Your task to perform on an android device: Open the web browser Image 0: 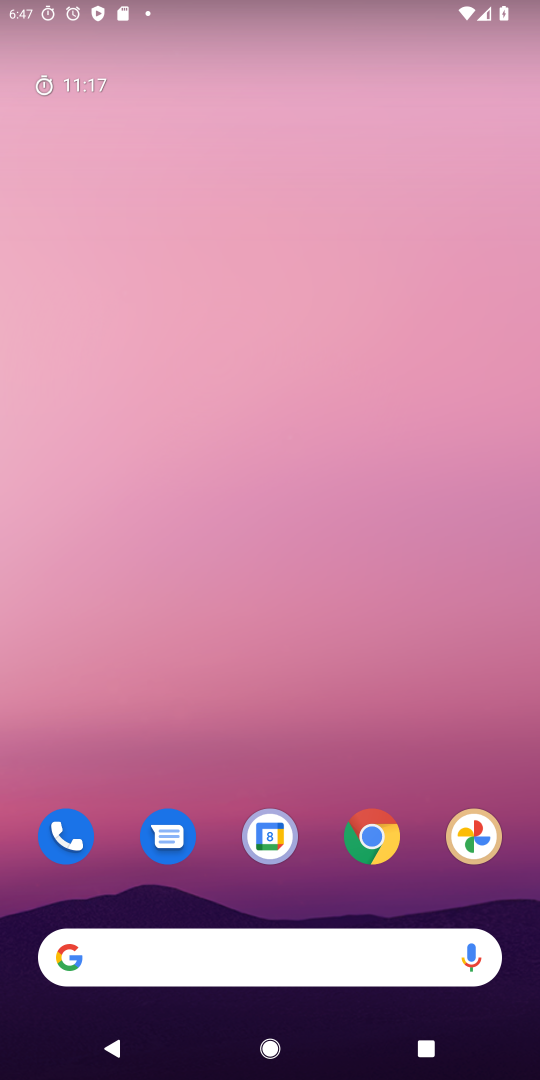
Step 0: drag from (364, 598) to (349, 130)
Your task to perform on an android device: Open the web browser Image 1: 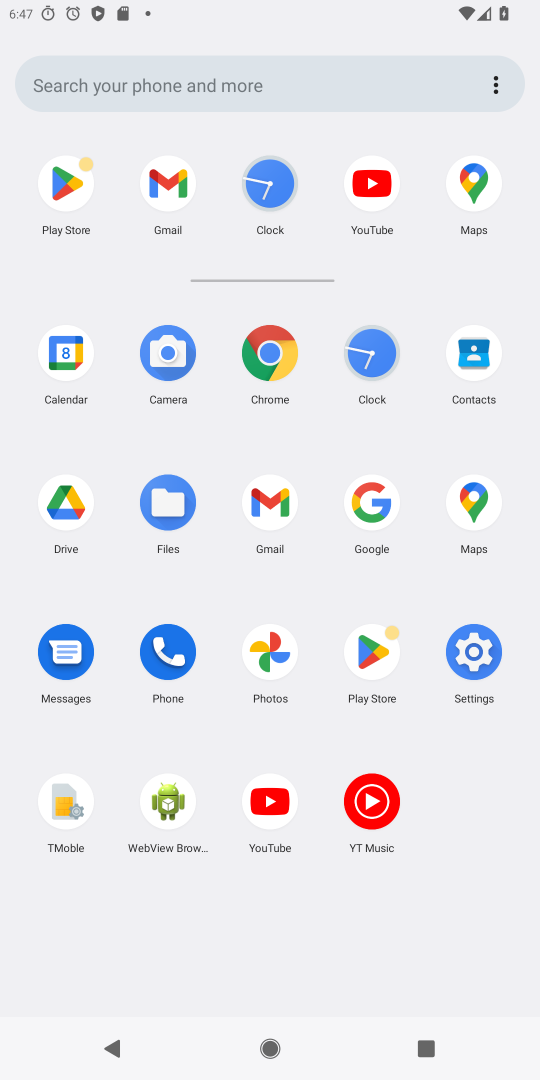
Step 1: click (275, 366)
Your task to perform on an android device: Open the web browser Image 2: 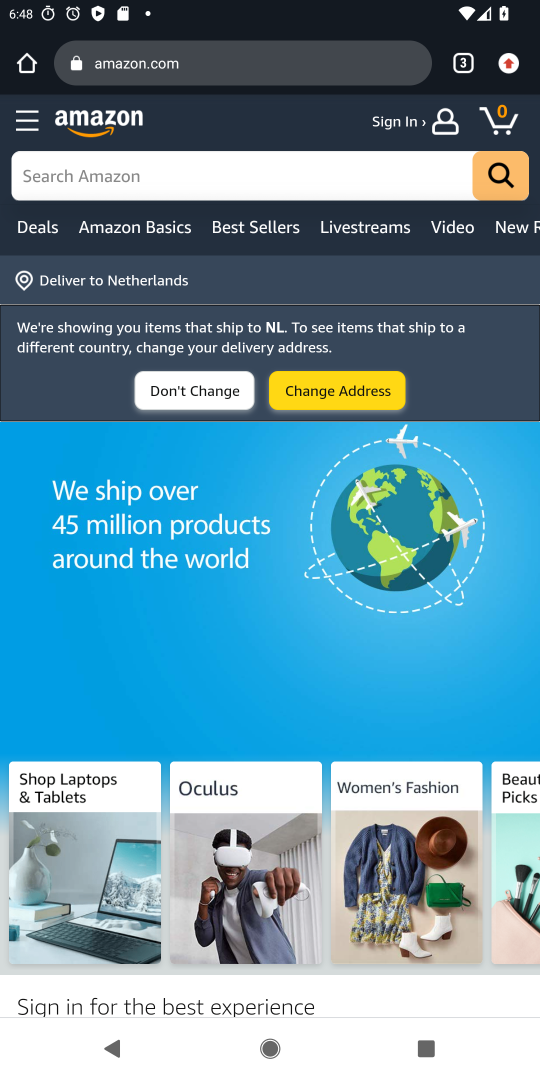
Step 2: task complete